Your task to perform on an android device: make emails show in primary in the gmail app Image 0: 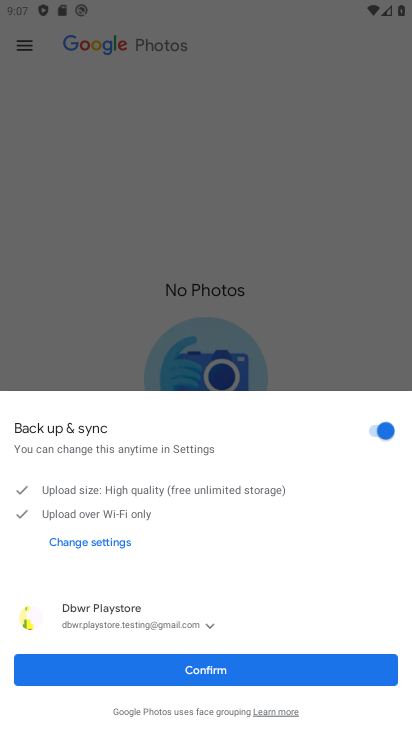
Step 0: press home button
Your task to perform on an android device: make emails show in primary in the gmail app Image 1: 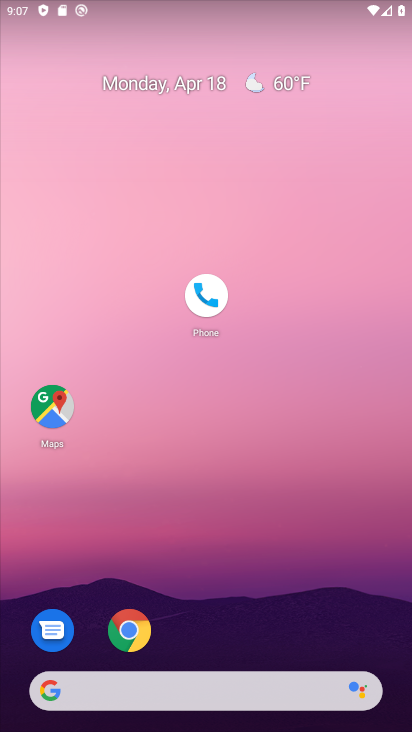
Step 1: drag from (290, 572) to (333, 154)
Your task to perform on an android device: make emails show in primary in the gmail app Image 2: 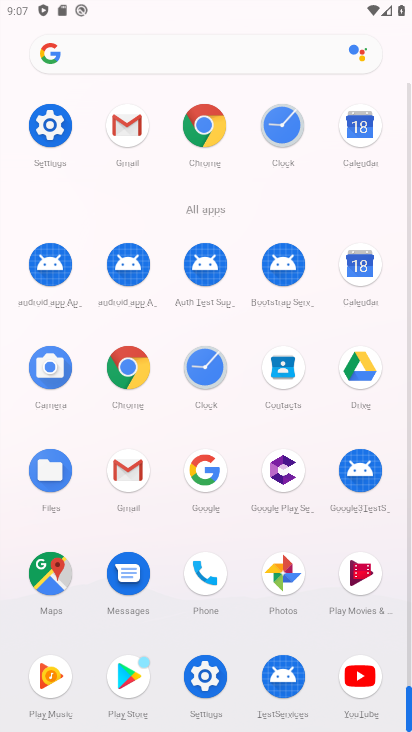
Step 2: click (131, 118)
Your task to perform on an android device: make emails show in primary in the gmail app Image 3: 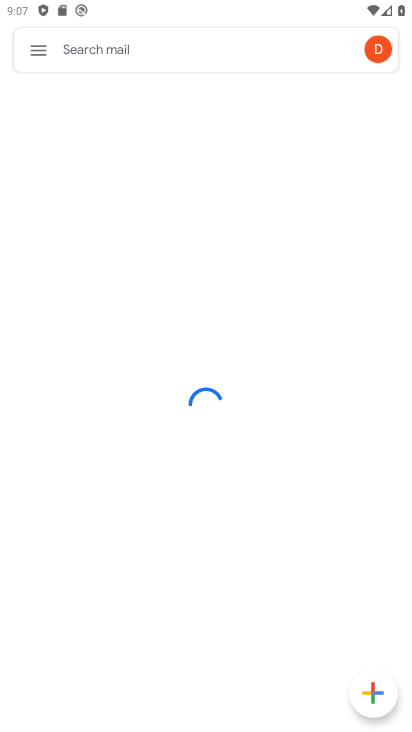
Step 3: click (37, 49)
Your task to perform on an android device: make emails show in primary in the gmail app Image 4: 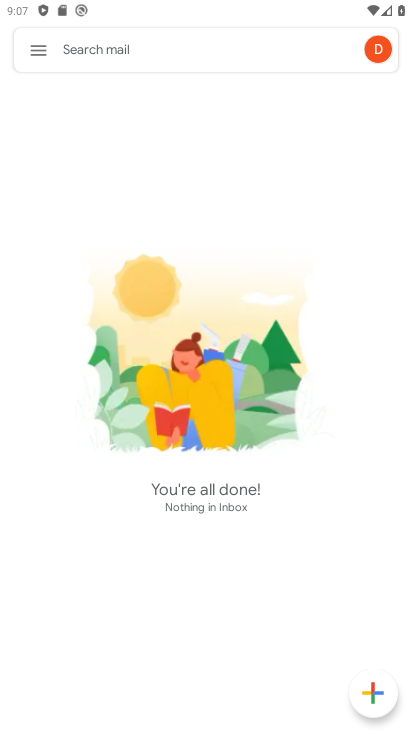
Step 4: click (28, 49)
Your task to perform on an android device: make emails show in primary in the gmail app Image 5: 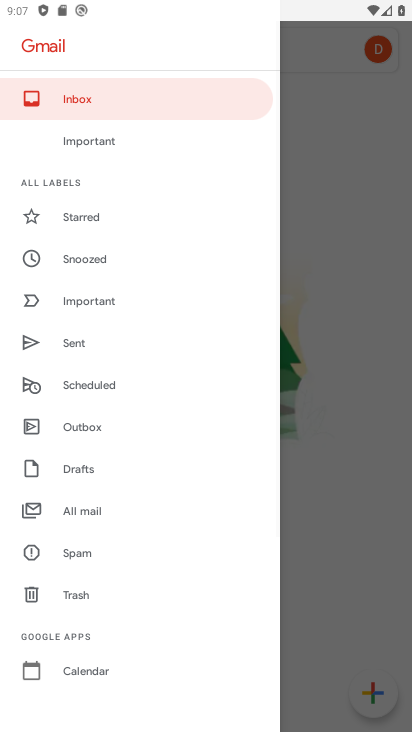
Step 5: drag from (100, 653) to (115, 301)
Your task to perform on an android device: make emails show in primary in the gmail app Image 6: 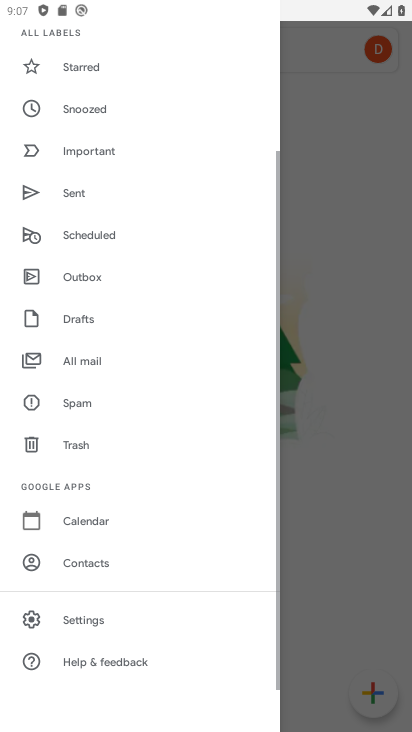
Step 6: click (143, 170)
Your task to perform on an android device: make emails show in primary in the gmail app Image 7: 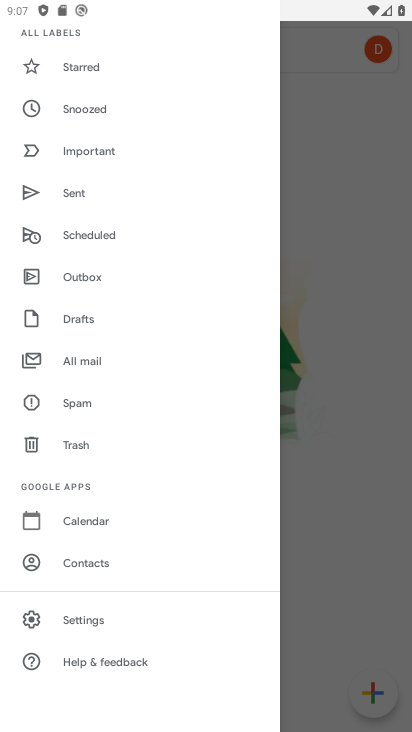
Step 7: click (79, 632)
Your task to perform on an android device: make emails show in primary in the gmail app Image 8: 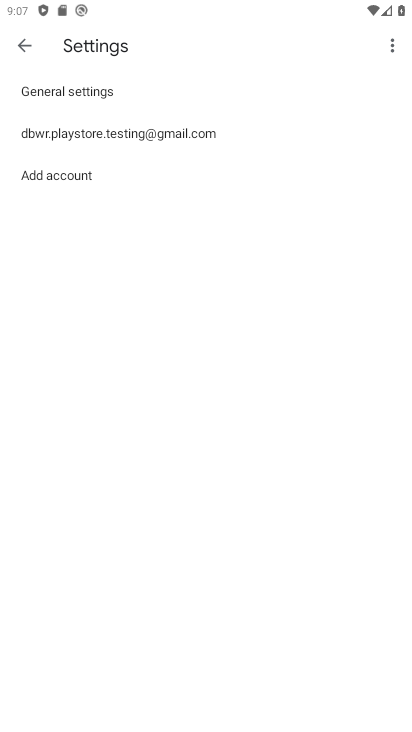
Step 8: click (161, 136)
Your task to perform on an android device: make emails show in primary in the gmail app Image 9: 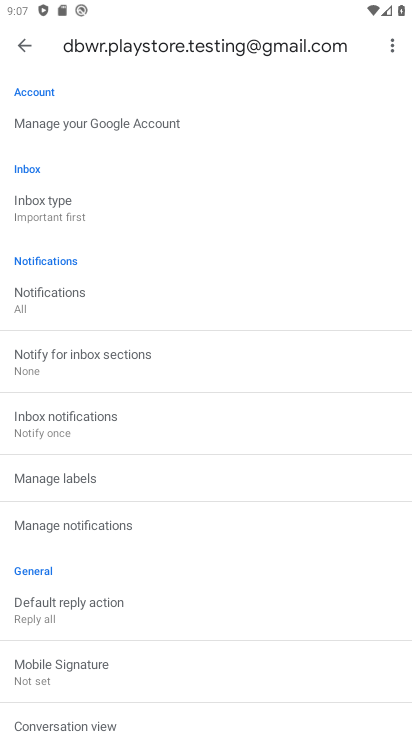
Step 9: click (47, 212)
Your task to perform on an android device: make emails show in primary in the gmail app Image 10: 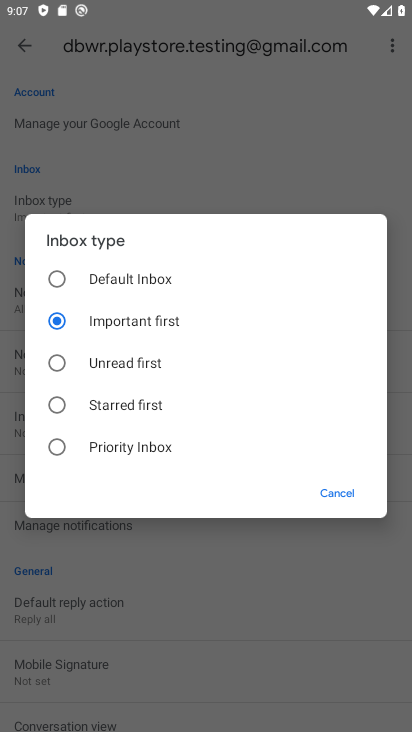
Step 10: click (97, 270)
Your task to perform on an android device: make emails show in primary in the gmail app Image 11: 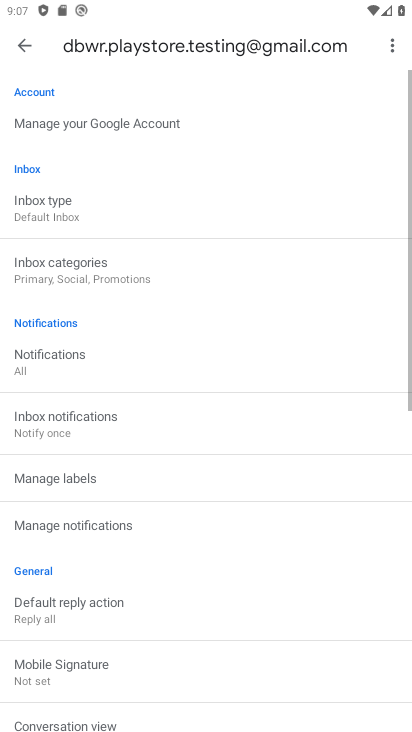
Step 11: click (97, 270)
Your task to perform on an android device: make emails show in primary in the gmail app Image 12: 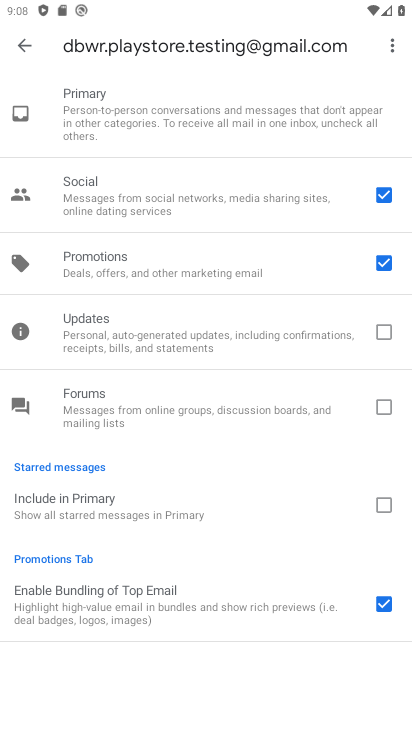
Step 12: task complete